Your task to perform on an android device: Open maps Image 0: 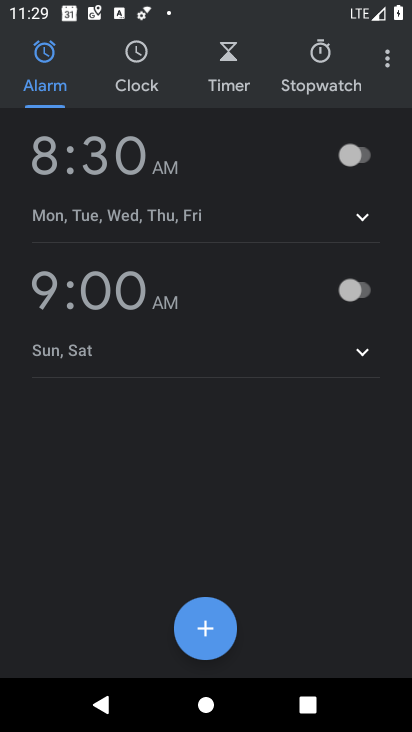
Step 0: press home button
Your task to perform on an android device: Open maps Image 1: 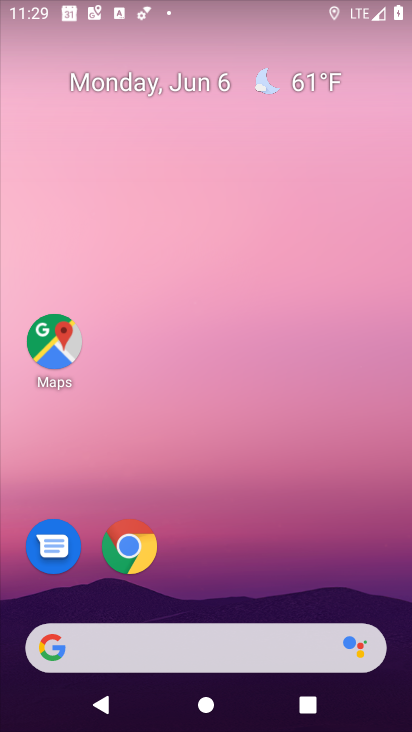
Step 1: click (56, 345)
Your task to perform on an android device: Open maps Image 2: 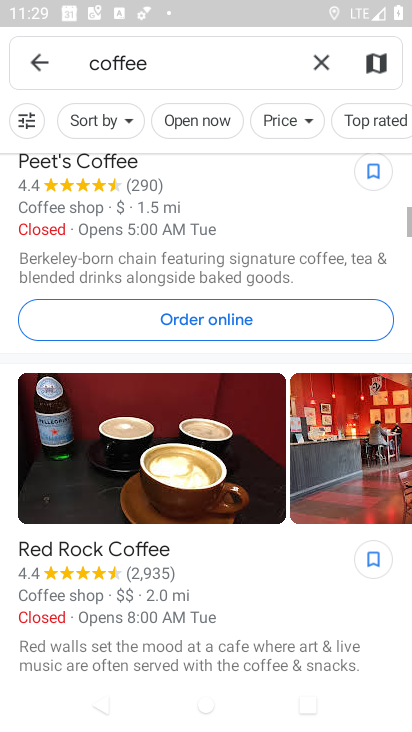
Step 2: click (319, 61)
Your task to perform on an android device: Open maps Image 3: 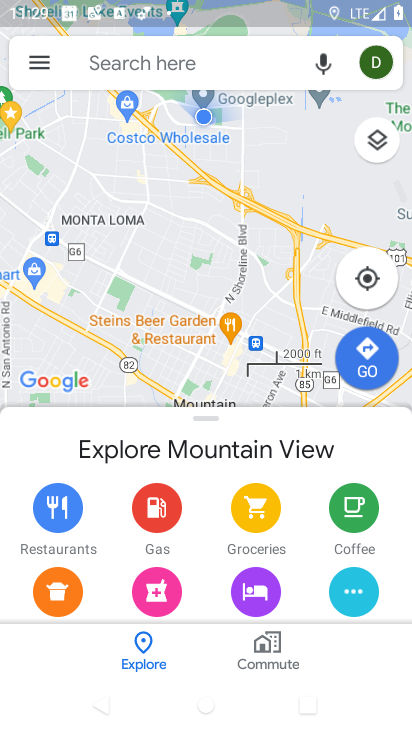
Step 3: task complete